Your task to perform on an android device: turn on improve location accuracy Image 0: 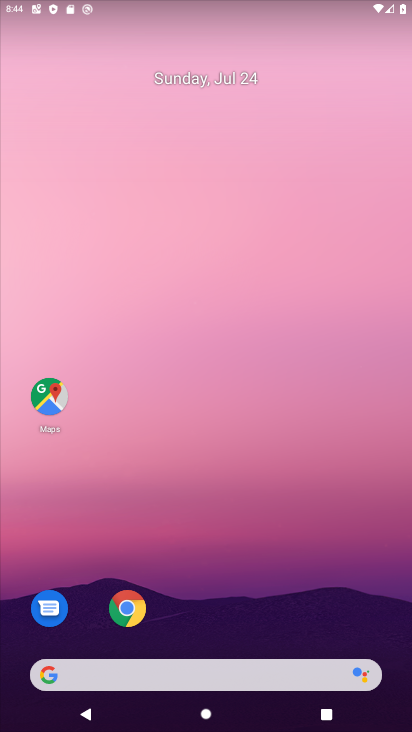
Step 0: drag from (228, 642) to (317, 117)
Your task to perform on an android device: turn on improve location accuracy Image 1: 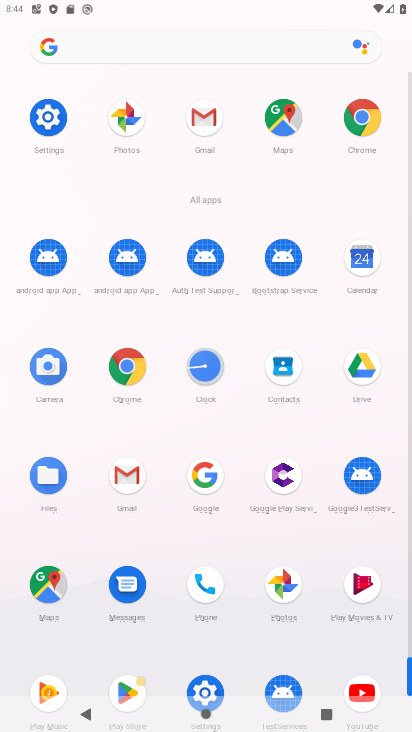
Step 1: click (201, 686)
Your task to perform on an android device: turn on improve location accuracy Image 2: 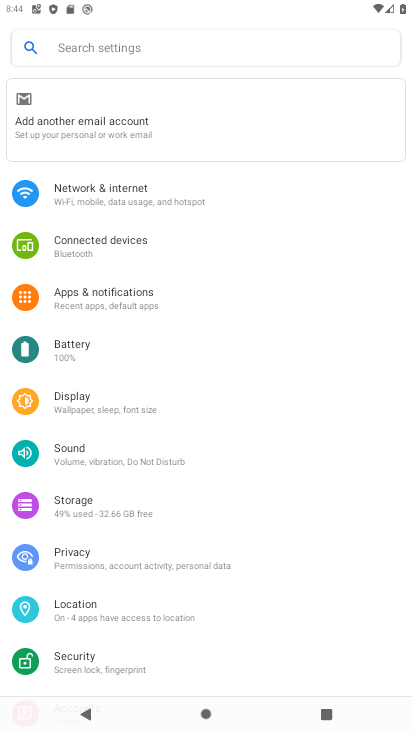
Step 2: click (90, 614)
Your task to perform on an android device: turn on improve location accuracy Image 3: 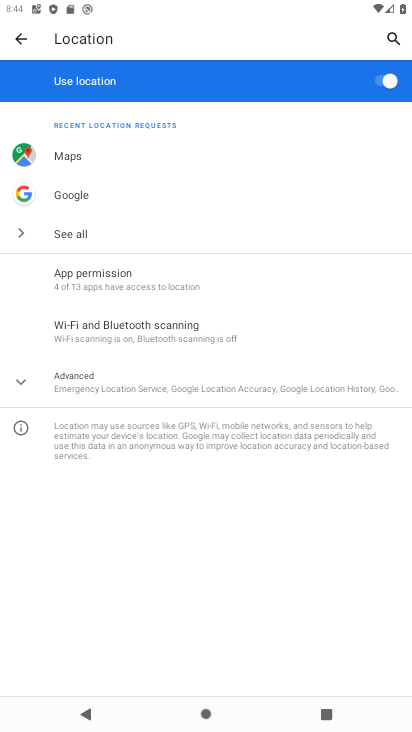
Step 3: click (152, 383)
Your task to perform on an android device: turn on improve location accuracy Image 4: 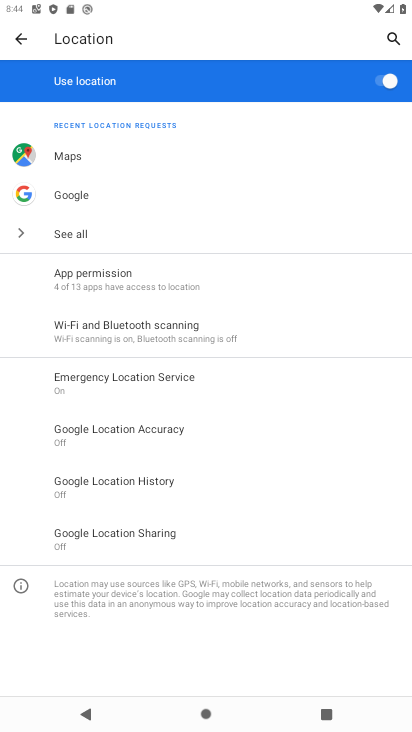
Step 4: click (142, 434)
Your task to perform on an android device: turn on improve location accuracy Image 5: 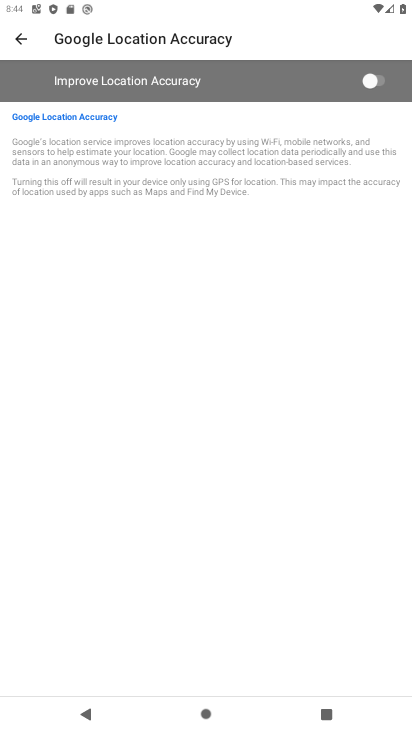
Step 5: click (397, 64)
Your task to perform on an android device: turn on improve location accuracy Image 6: 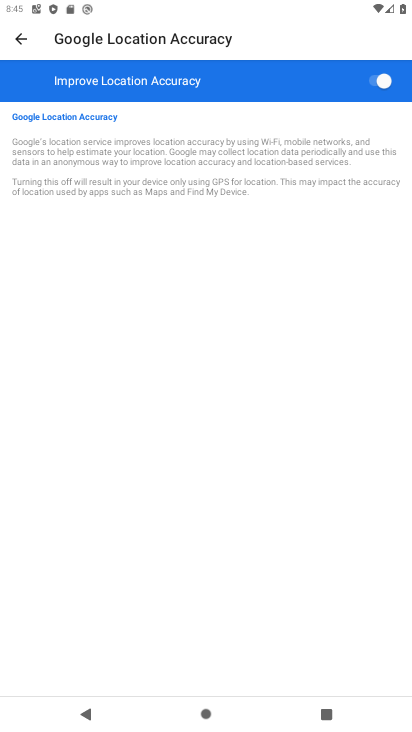
Step 6: task complete